Your task to perform on an android device: Open eBay Image 0: 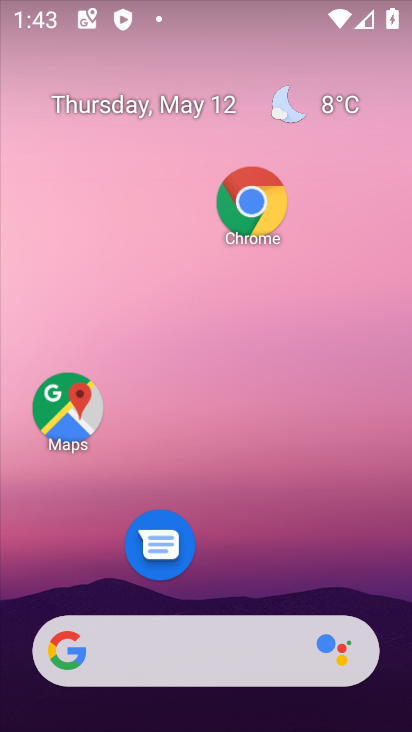
Step 0: drag from (194, 522) to (264, 118)
Your task to perform on an android device: Open eBay Image 1: 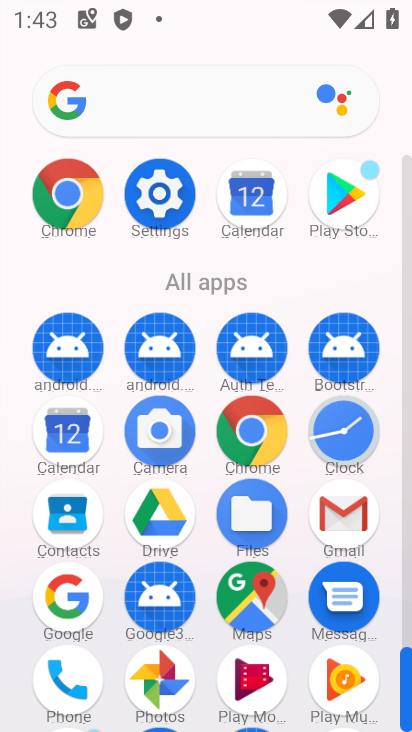
Step 1: click (156, 91)
Your task to perform on an android device: Open eBay Image 2: 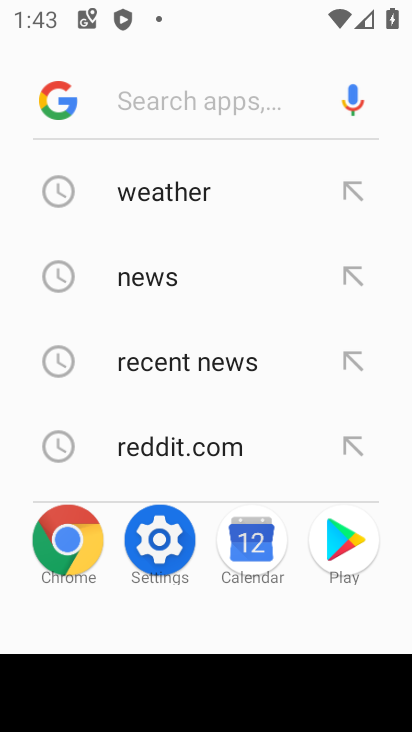
Step 2: type "ebay"
Your task to perform on an android device: Open eBay Image 3: 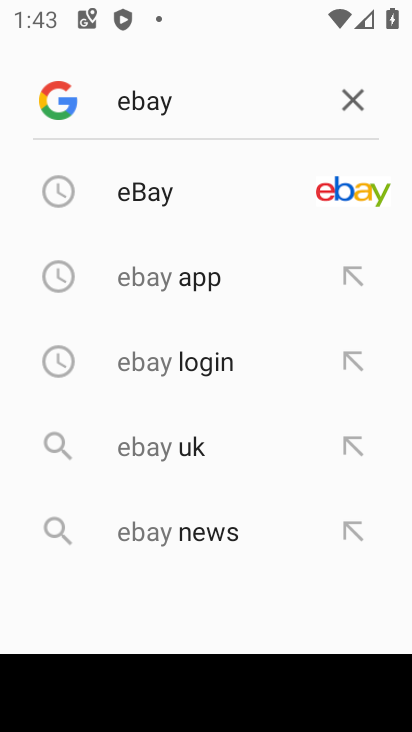
Step 3: click (203, 209)
Your task to perform on an android device: Open eBay Image 4: 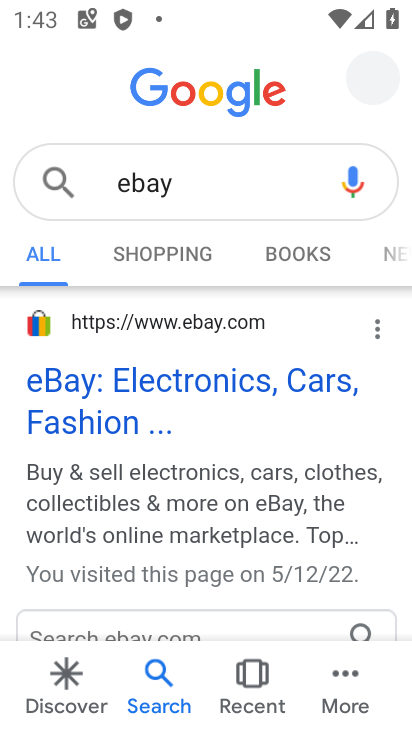
Step 4: task complete